Your task to perform on an android device: Set the phone to "Do not disturb". Image 0: 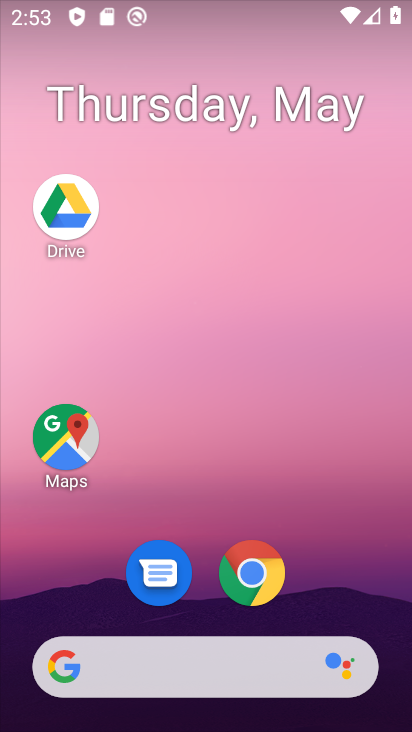
Step 0: drag from (353, 565) to (197, 53)
Your task to perform on an android device: Set the phone to "Do not disturb". Image 1: 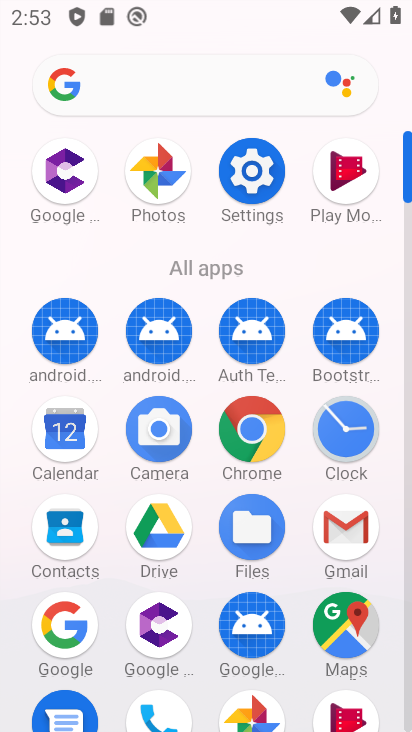
Step 1: click (249, 171)
Your task to perform on an android device: Set the phone to "Do not disturb". Image 2: 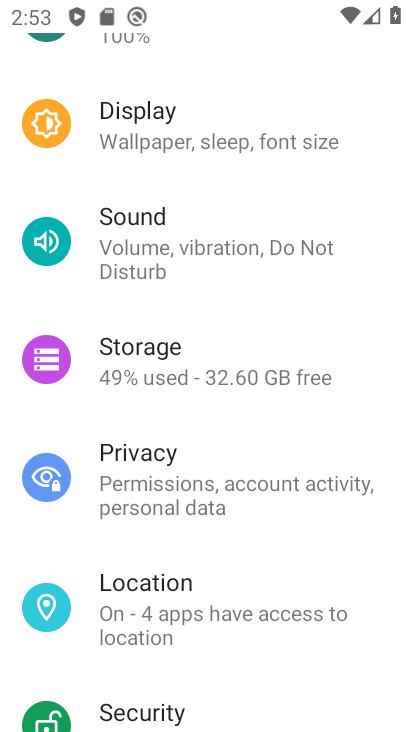
Step 2: click (96, 217)
Your task to perform on an android device: Set the phone to "Do not disturb". Image 3: 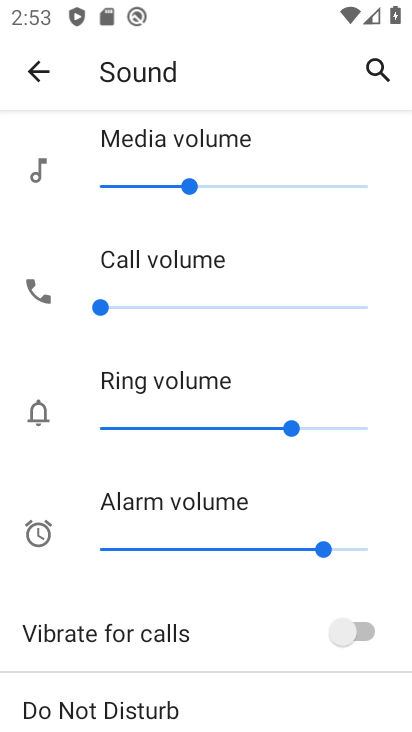
Step 3: drag from (197, 615) to (128, 405)
Your task to perform on an android device: Set the phone to "Do not disturb". Image 4: 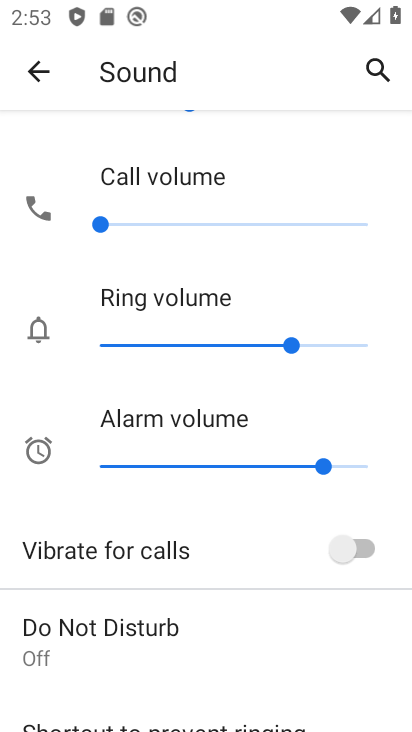
Step 4: click (136, 635)
Your task to perform on an android device: Set the phone to "Do not disturb". Image 5: 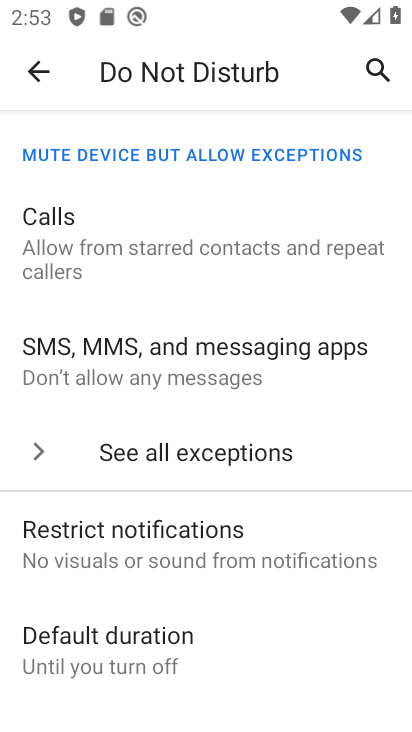
Step 5: drag from (200, 583) to (99, 324)
Your task to perform on an android device: Set the phone to "Do not disturb". Image 6: 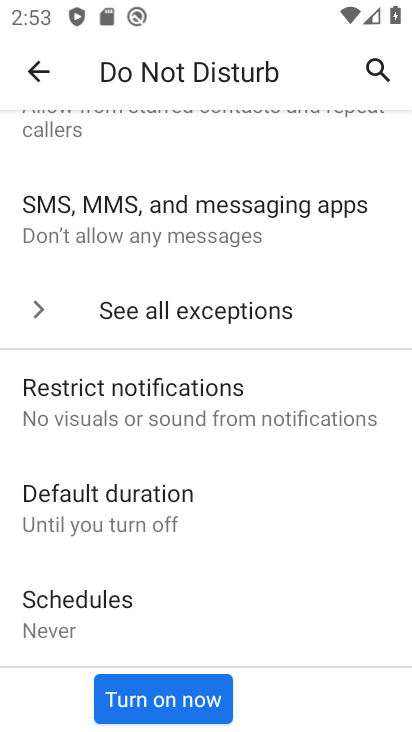
Step 6: click (161, 690)
Your task to perform on an android device: Set the phone to "Do not disturb". Image 7: 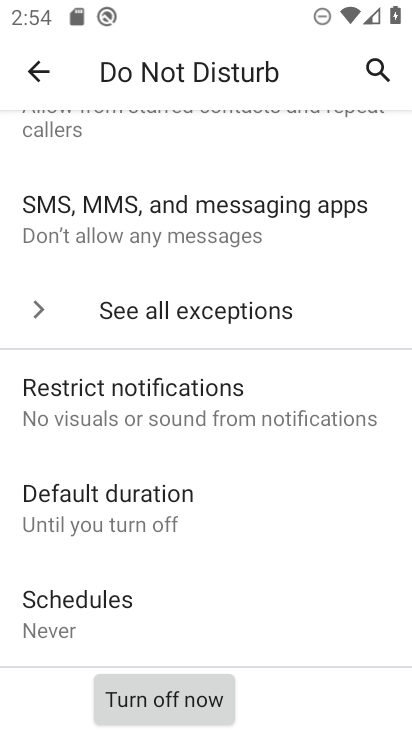
Step 7: task complete